Your task to perform on an android device: Open the map Image 0: 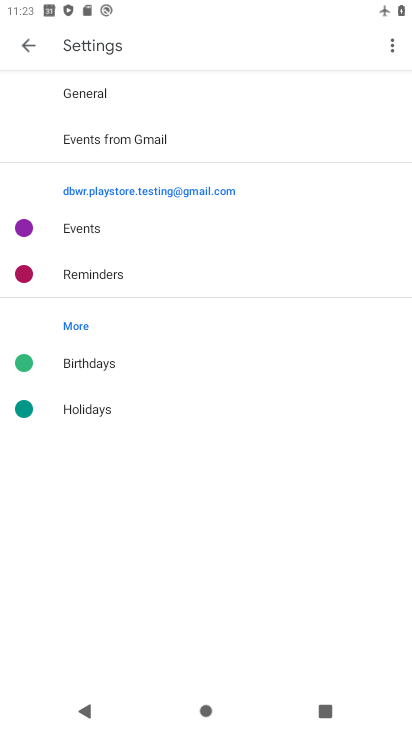
Step 0: press back button
Your task to perform on an android device: Open the map Image 1: 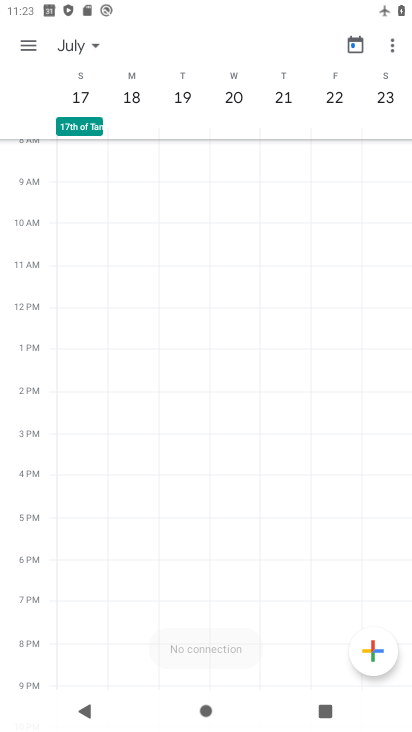
Step 1: press back button
Your task to perform on an android device: Open the map Image 2: 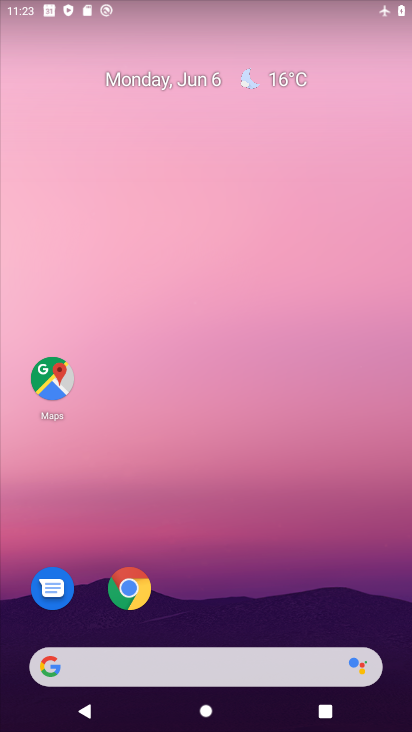
Step 2: click (52, 377)
Your task to perform on an android device: Open the map Image 3: 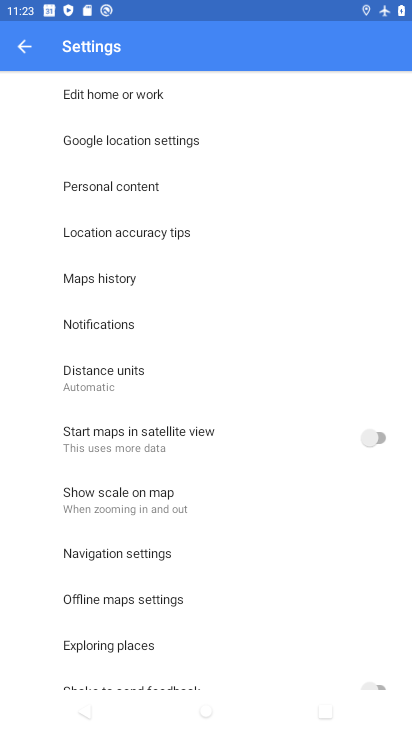
Step 3: task complete